Your task to perform on an android device: turn off priority inbox in the gmail app Image 0: 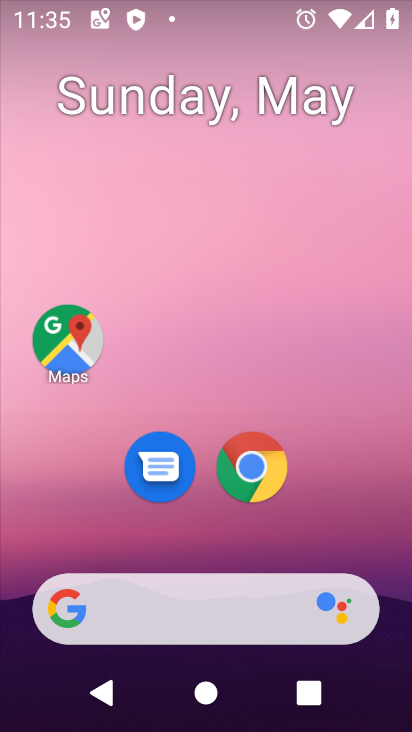
Step 0: drag from (385, 555) to (365, 25)
Your task to perform on an android device: turn off priority inbox in the gmail app Image 1: 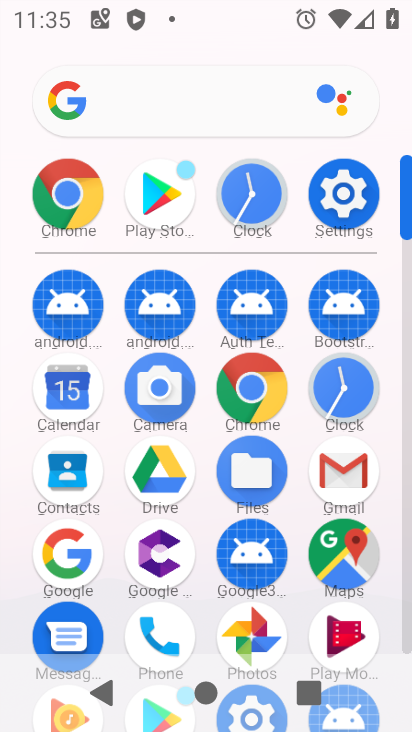
Step 1: click (347, 461)
Your task to perform on an android device: turn off priority inbox in the gmail app Image 2: 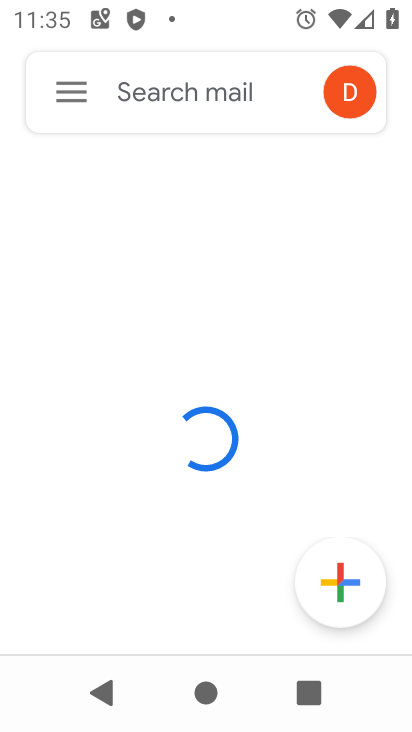
Step 2: click (68, 97)
Your task to perform on an android device: turn off priority inbox in the gmail app Image 3: 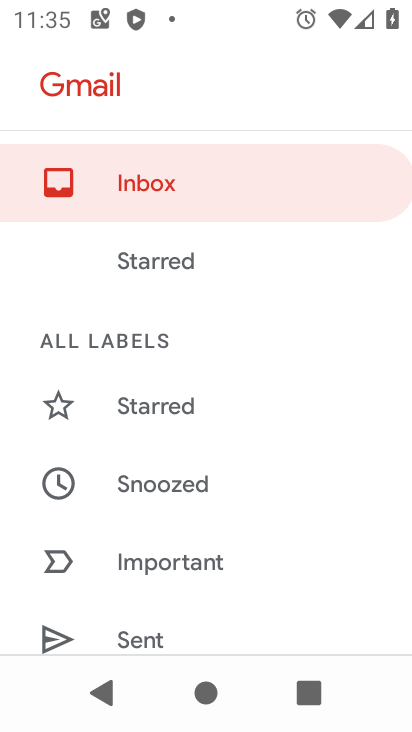
Step 3: drag from (195, 557) to (197, 183)
Your task to perform on an android device: turn off priority inbox in the gmail app Image 4: 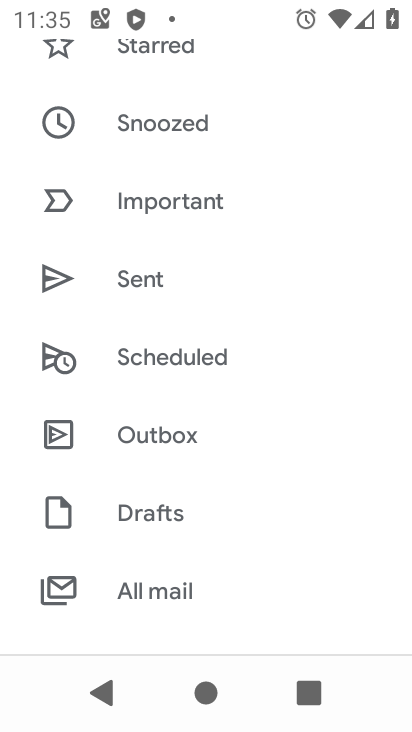
Step 4: drag from (213, 588) to (198, 108)
Your task to perform on an android device: turn off priority inbox in the gmail app Image 5: 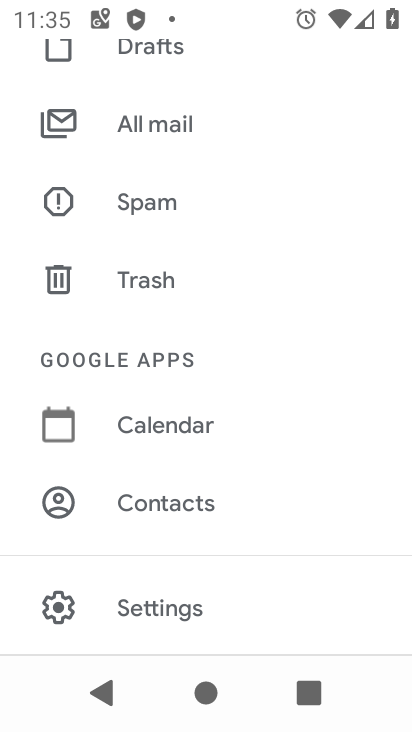
Step 5: drag from (223, 583) to (205, 129)
Your task to perform on an android device: turn off priority inbox in the gmail app Image 6: 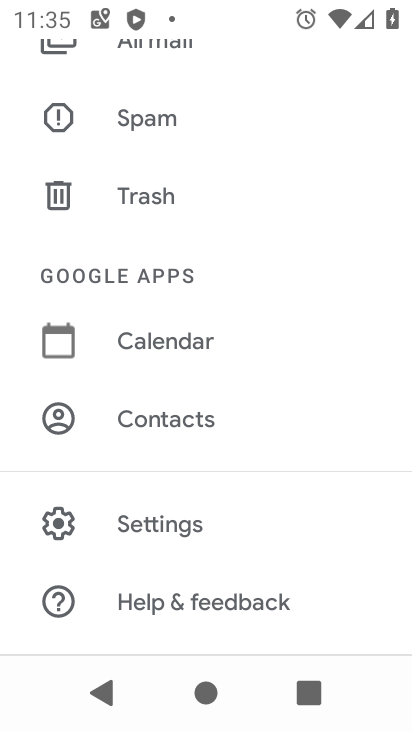
Step 6: click (170, 525)
Your task to perform on an android device: turn off priority inbox in the gmail app Image 7: 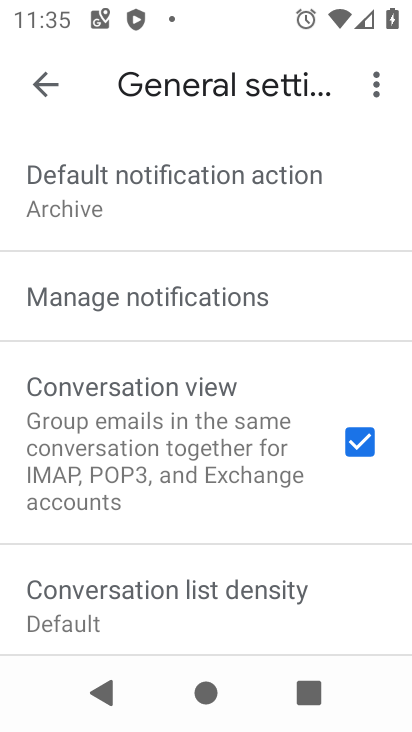
Step 7: click (44, 100)
Your task to perform on an android device: turn off priority inbox in the gmail app Image 8: 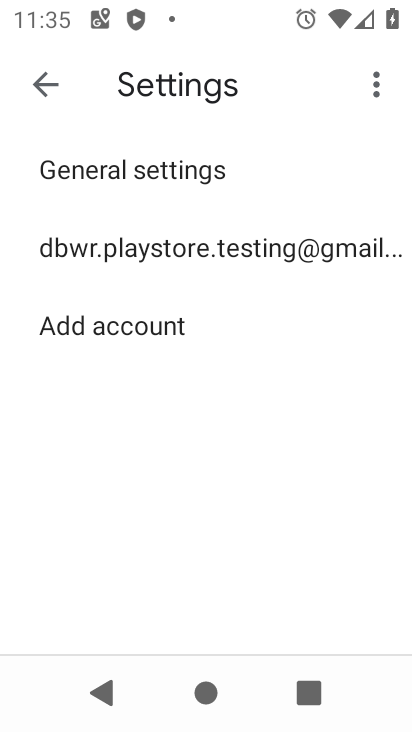
Step 8: click (102, 258)
Your task to perform on an android device: turn off priority inbox in the gmail app Image 9: 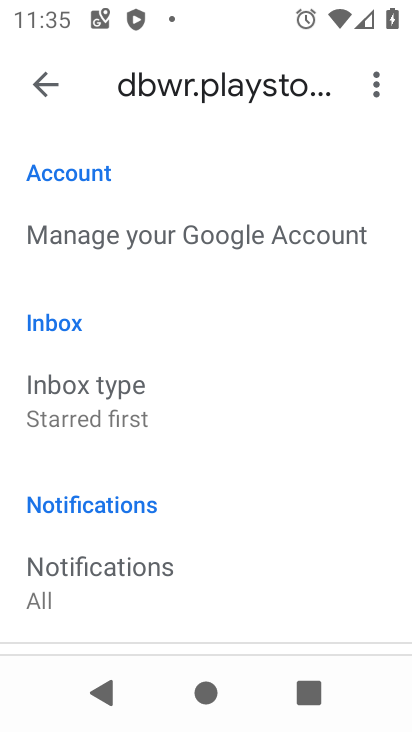
Step 9: click (86, 411)
Your task to perform on an android device: turn off priority inbox in the gmail app Image 10: 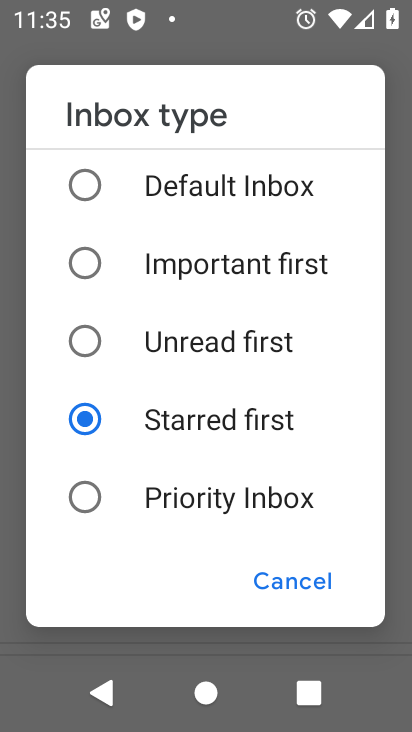
Step 10: task complete